Your task to perform on an android device: What's the weather today? Image 0: 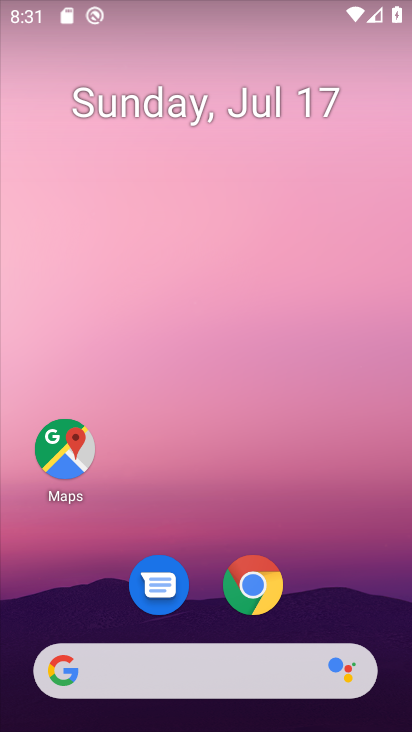
Step 0: click (188, 673)
Your task to perform on an android device: What's the weather today? Image 1: 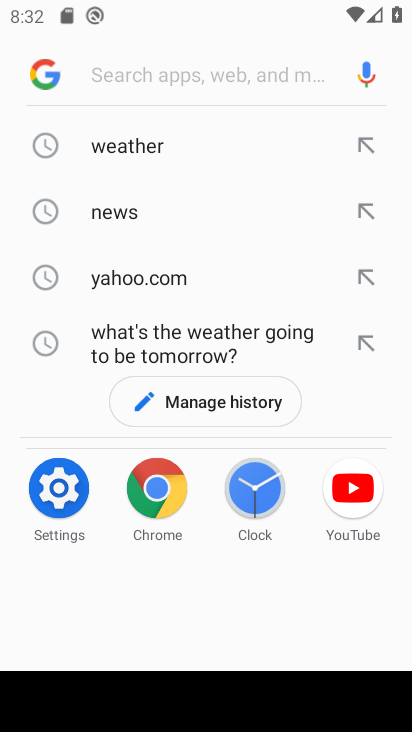
Step 1: click (158, 145)
Your task to perform on an android device: What's the weather today? Image 2: 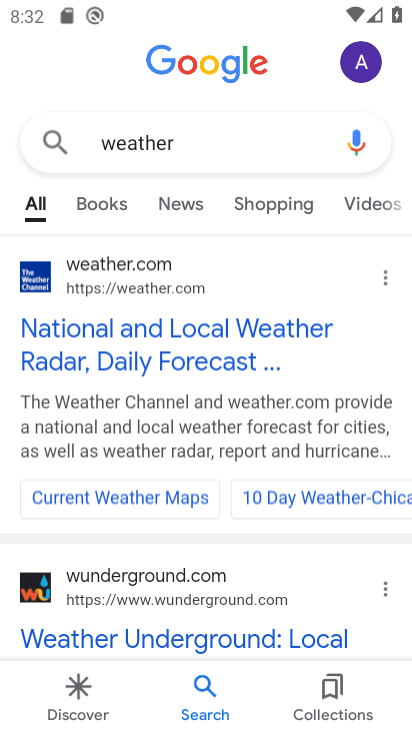
Step 2: click (76, 338)
Your task to perform on an android device: What's the weather today? Image 3: 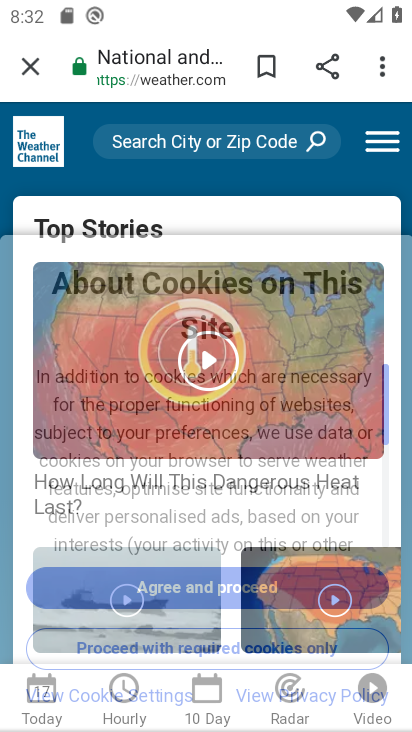
Step 3: click (23, 51)
Your task to perform on an android device: What's the weather today? Image 4: 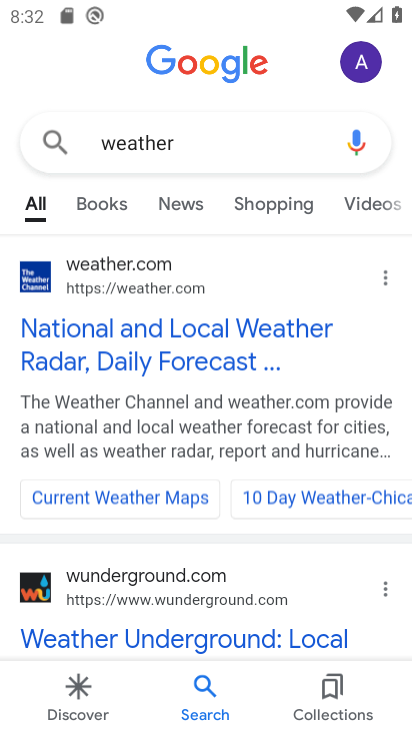
Step 4: click (242, 56)
Your task to perform on an android device: What's the weather today? Image 5: 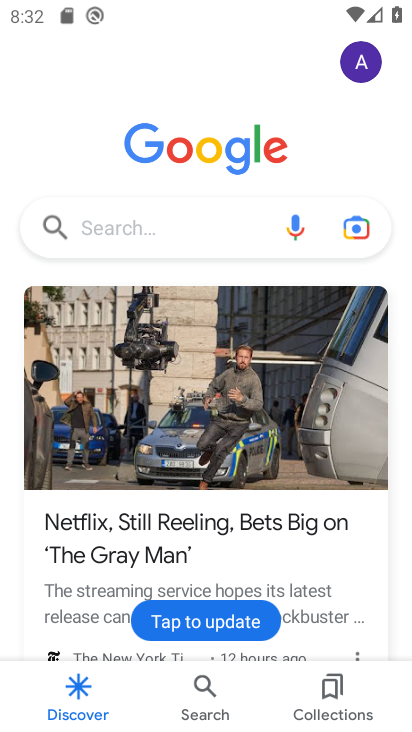
Step 5: click (200, 239)
Your task to perform on an android device: What's the weather today? Image 6: 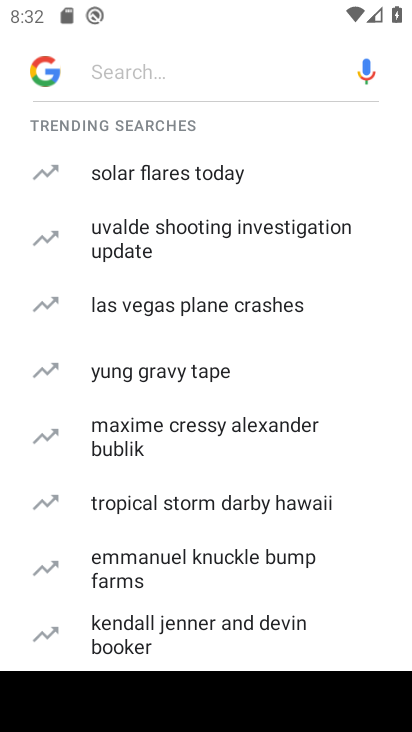
Step 6: type "weather"
Your task to perform on an android device: What's the weather today? Image 7: 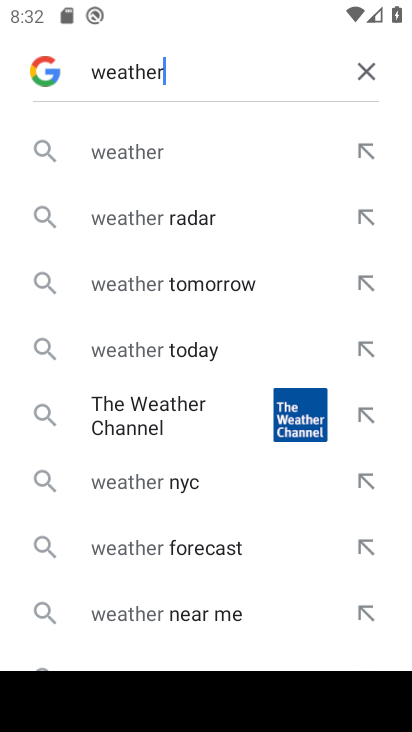
Step 7: click (123, 338)
Your task to perform on an android device: What's the weather today? Image 8: 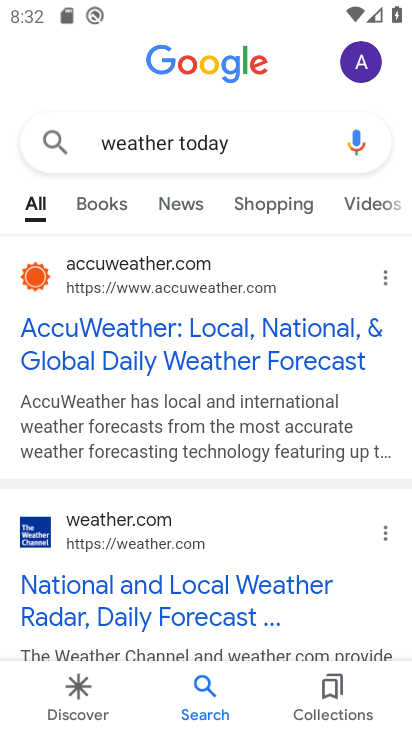
Step 8: drag from (164, 544) to (223, 197)
Your task to perform on an android device: What's the weather today? Image 9: 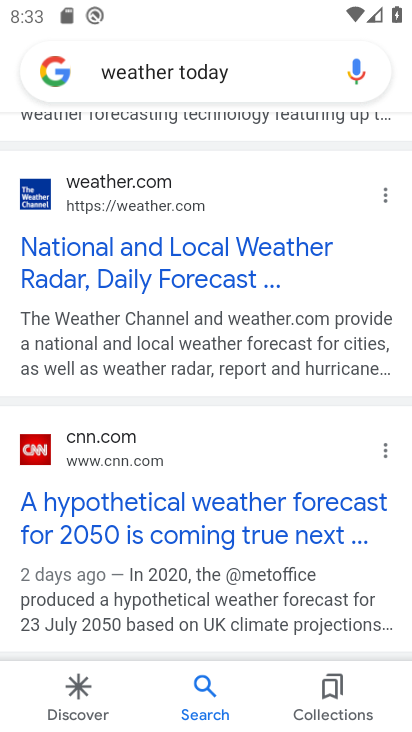
Step 9: click (57, 66)
Your task to perform on an android device: What's the weather today? Image 10: 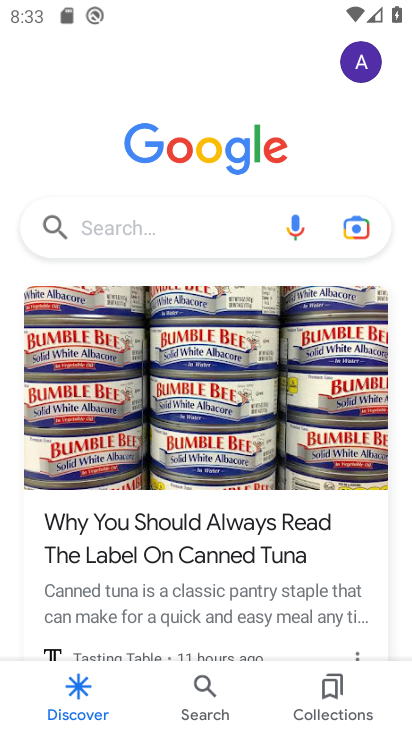
Step 10: drag from (216, 567) to (228, 215)
Your task to perform on an android device: What's the weather today? Image 11: 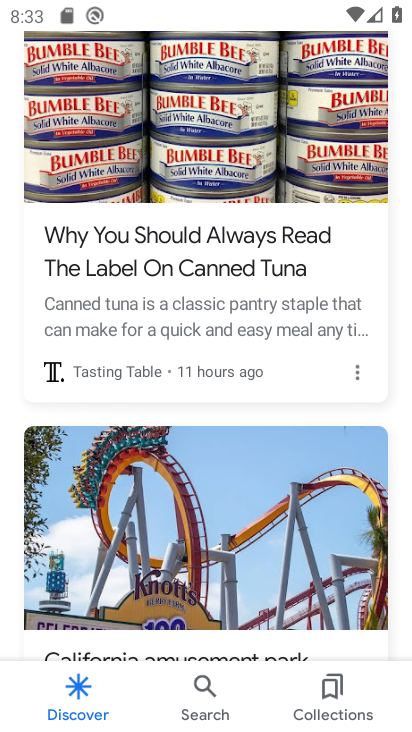
Step 11: drag from (226, 221) to (266, 524)
Your task to perform on an android device: What's the weather today? Image 12: 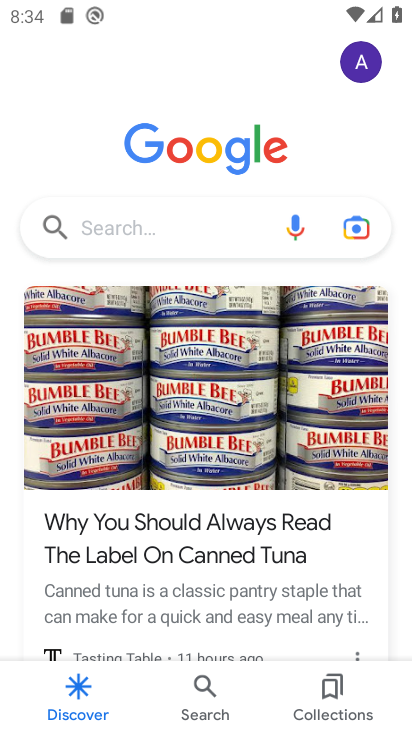
Step 12: click (138, 216)
Your task to perform on an android device: What's the weather today? Image 13: 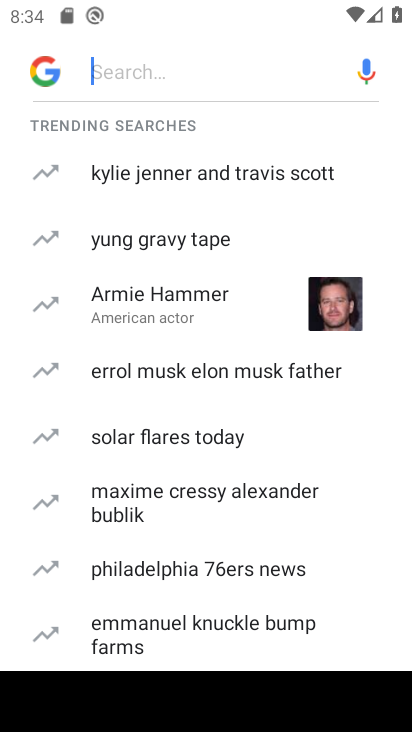
Step 13: drag from (191, 583) to (221, 167)
Your task to perform on an android device: What's the weather today? Image 14: 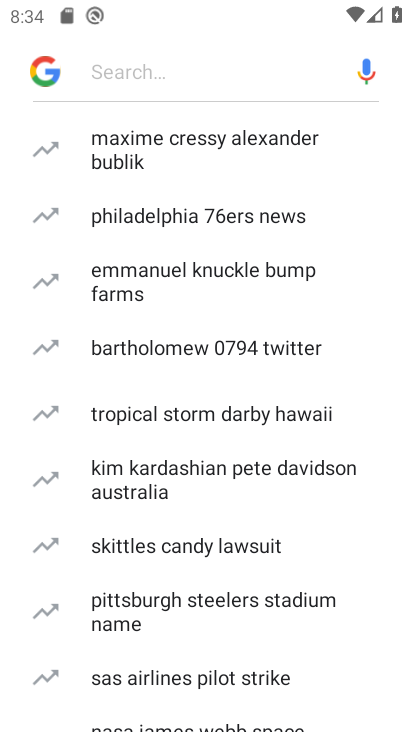
Step 14: type "weather"
Your task to perform on an android device: What's the weather today? Image 15: 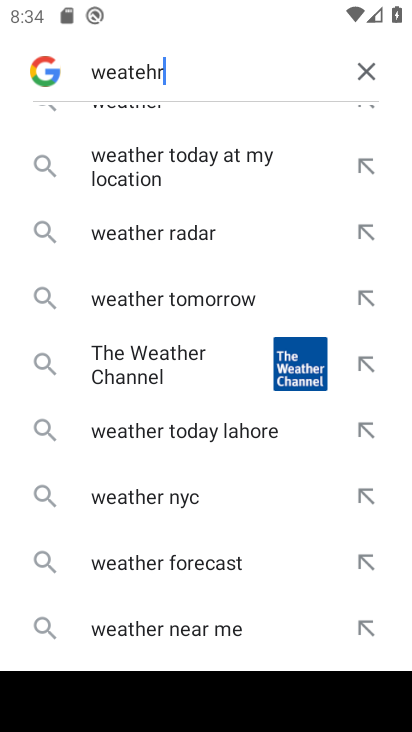
Step 15: drag from (154, 178) to (207, 563)
Your task to perform on an android device: What's the weather today? Image 16: 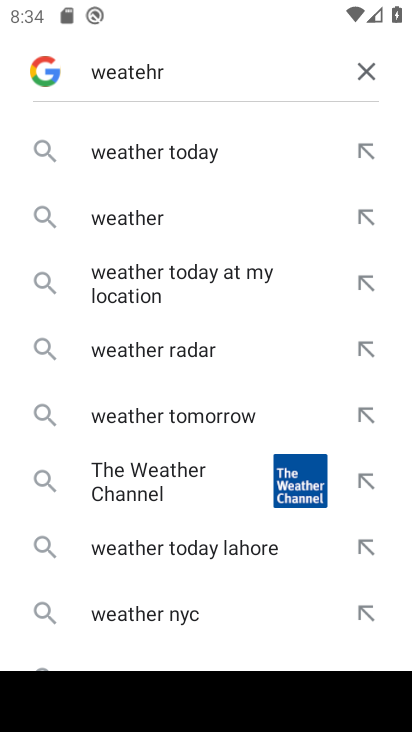
Step 16: click (126, 213)
Your task to perform on an android device: What's the weather today? Image 17: 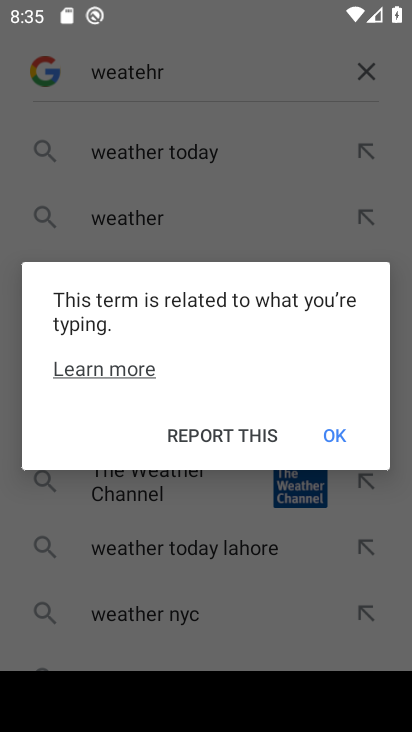
Step 17: click (344, 436)
Your task to perform on an android device: What's the weather today? Image 18: 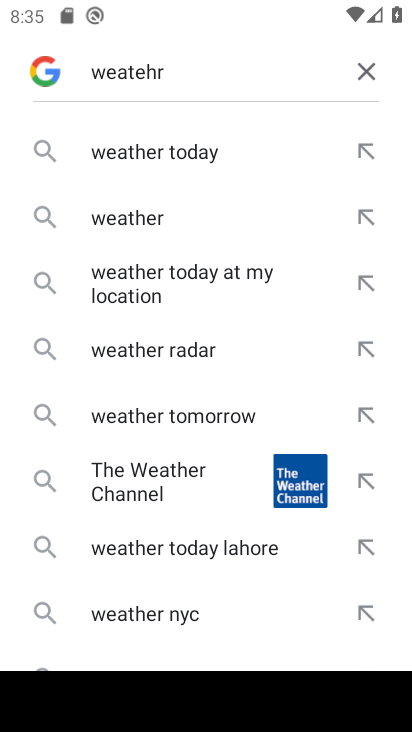
Step 18: click (138, 209)
Your task to perform on an android device: What's the weather today? Image 19: 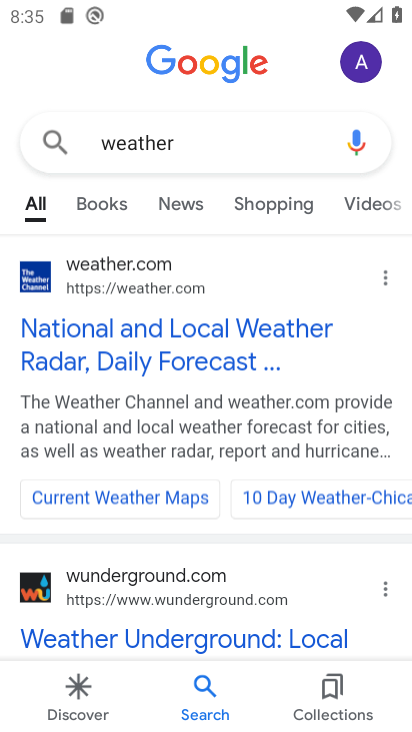
Step 19: task complete